Your task to perform on an android device: add a contact Image 0: 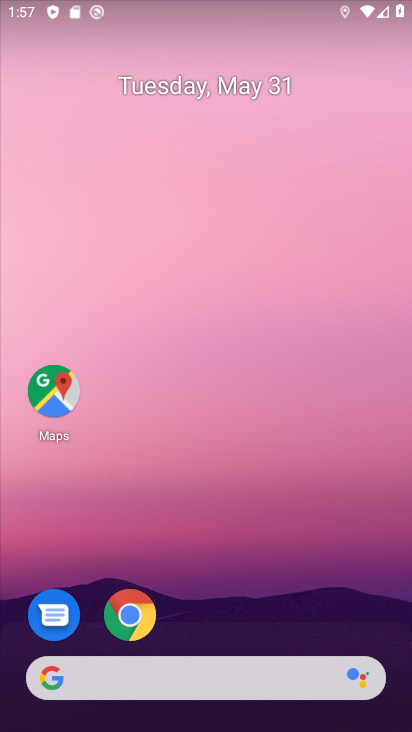
Step 0: drag from (226, 220) to (246, 71)
Your task to perform on an android device: add a contact Image 1: 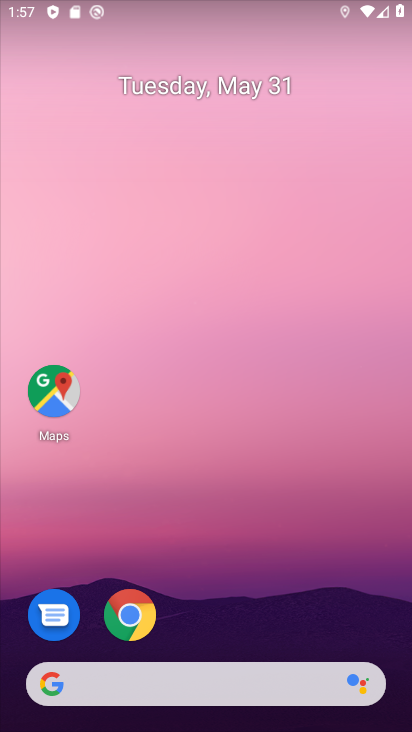
Step 1: drag from (229, 579) to (295, 48)
Your task to perform on an android device: add a contact Image 2: 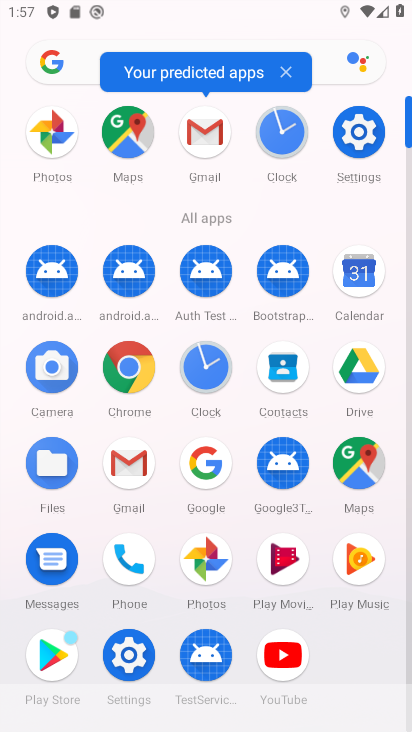
Step 2: click (274, 365)
Your task to perform on an android device: add a contact Image 3: 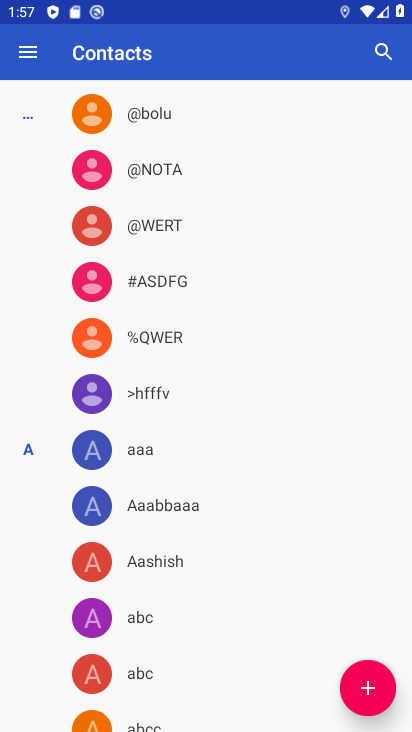
Step 3: click (374, 682)
Your task to perform on an android device: add a contact Image 4: 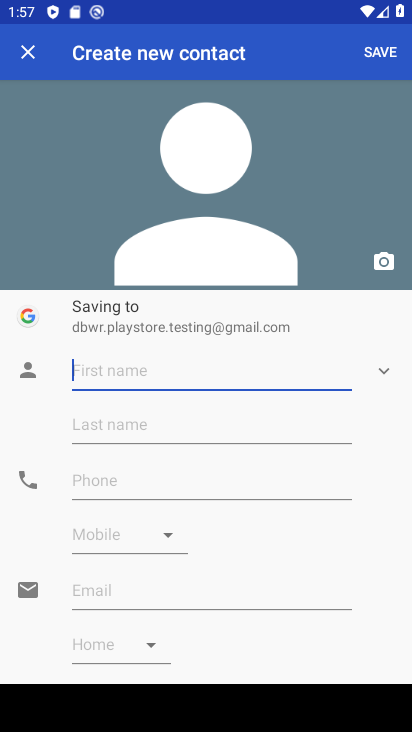
Step 4: type "hgh"
Your task to perform on an android device: add a contact Image 5: 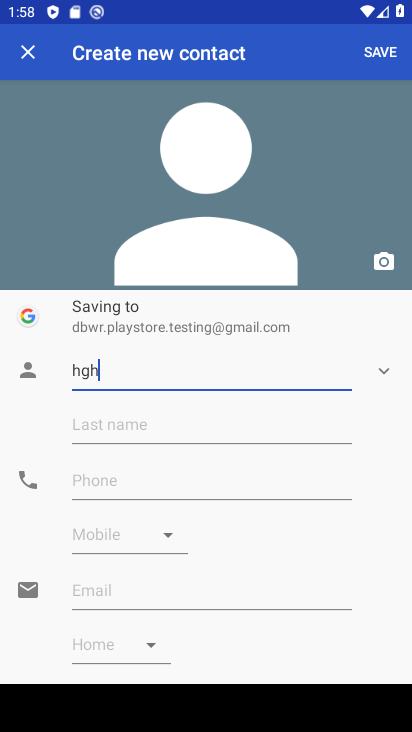
Step 5: click (109, 475)
Your task to perform on an android device: add a contact Image 6: 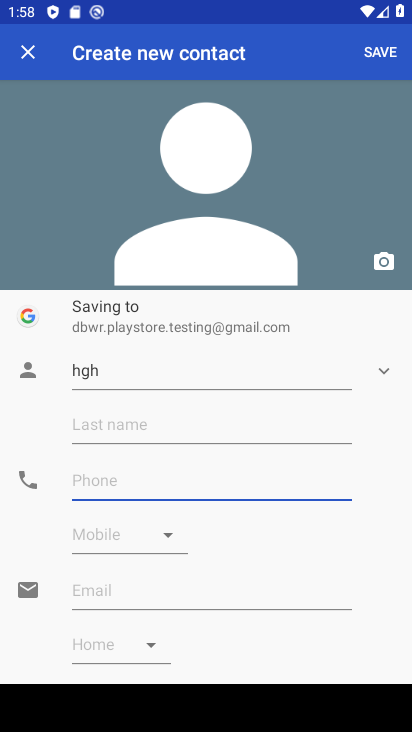
Step 6: type "9989"
Your task to perform on an android device: add a contact Image 7: 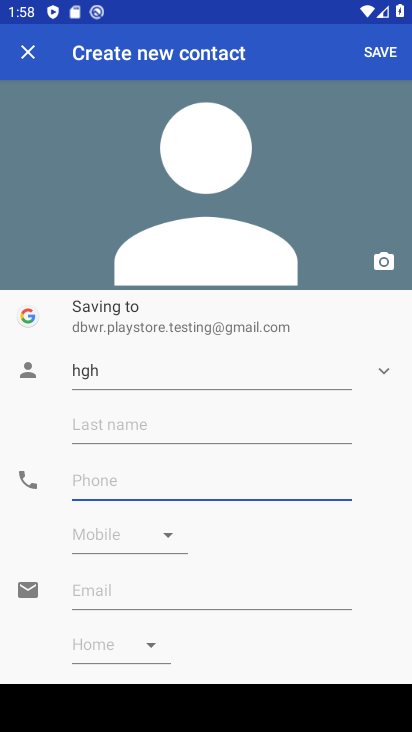
Step 7: click (118, 477)
Your task to perform on an android device: add a contact Image 8: 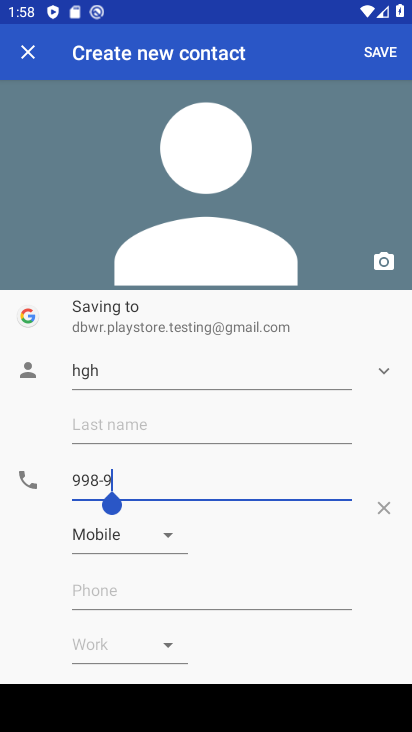
Step 8: click (375, 52)
Your task to perform on an android device: add a contact Image 9: 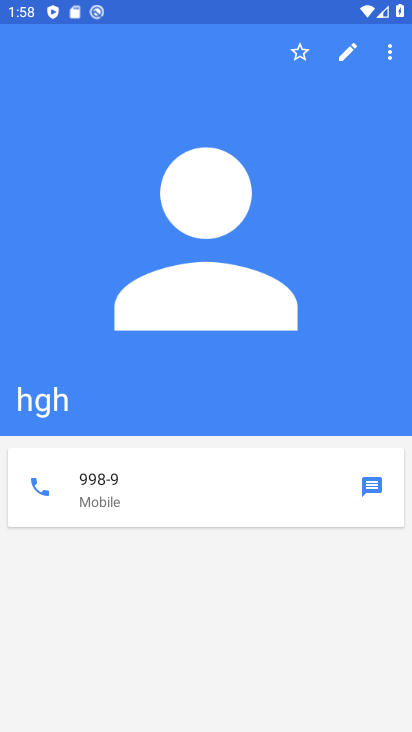
Step 9: task complete